Your task to perform on an android device: Turn off the flashlight Image 0: 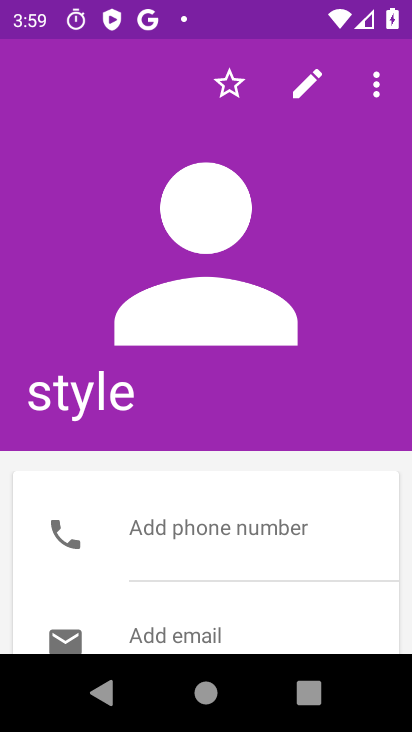
Step 0: press home button
Your task to perform on an android device: Turn off the flashlight Image 1: 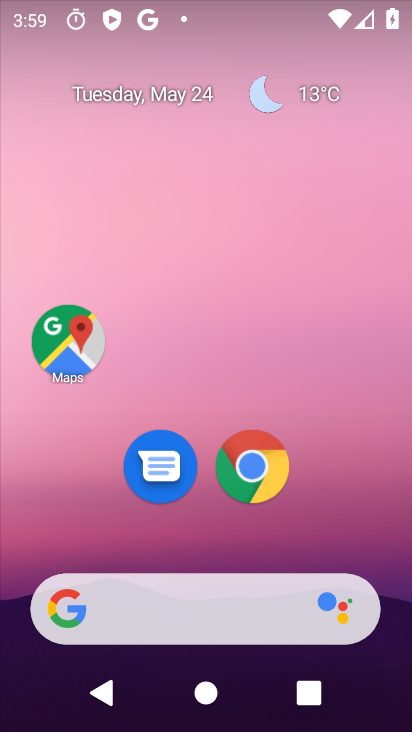
Step 1: drag from (300, 390) to (308, 116)
Your task to perform on an android device: Turn off the flashlight Image 2: 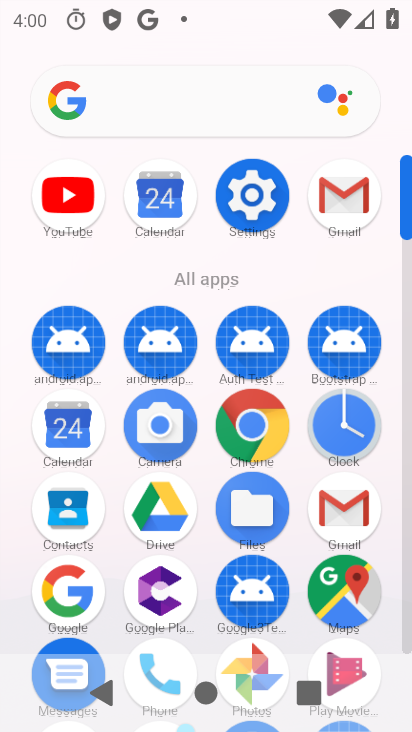
Step 2: click (249, 200)
Your task to perform on an android device: Turn off the flashlight Image 3: 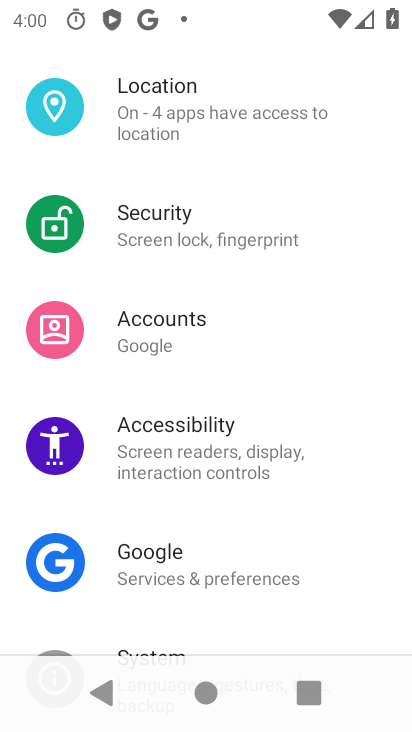
Step 3: drag from (265, 166) to (247, 541)
Your task to perform on an android device: Turn off the flashlight Image 4: 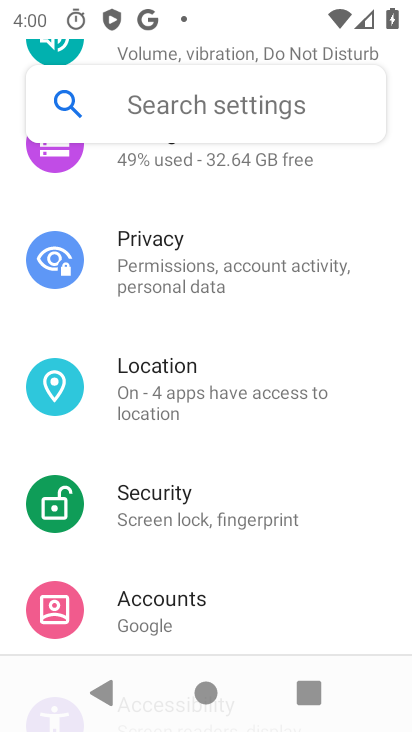
Step 4: drag from (204, 232) to (200, 564)
Your task to perform on an android device: Turn off the flashlight Image 5: 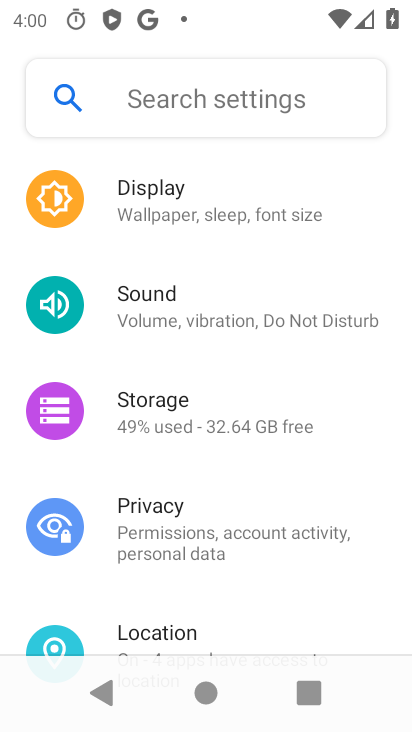
Step 5: drag from (174, 235) to (197, 574)
Your task to perform on an android device: Turn off the flashlight Image 6: 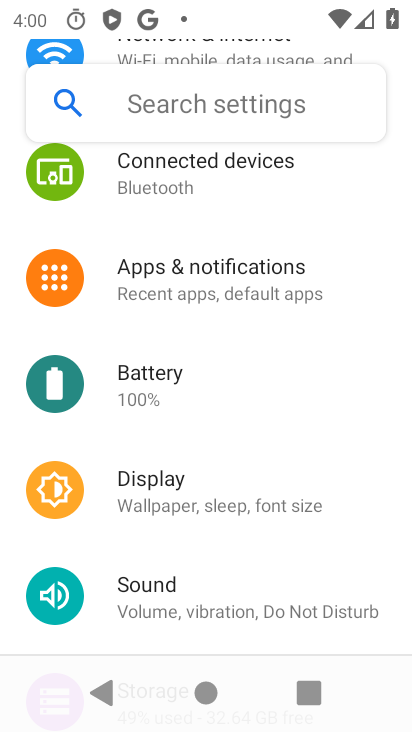
Step 6: drag from (152, 222) to (182, 574)
Your task to perform on an android device: Turn off the flashlight Image 7: 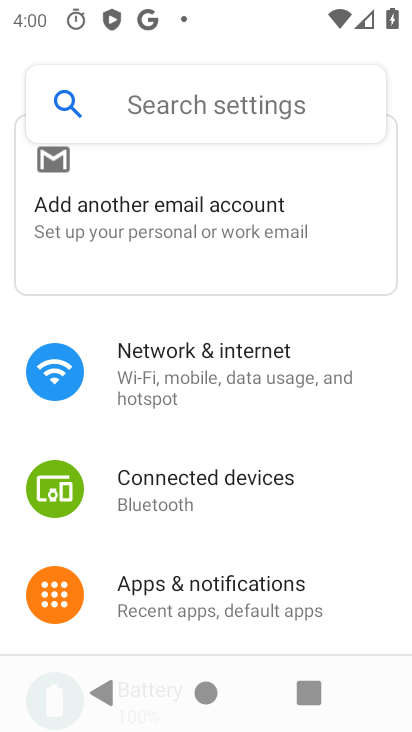
Step 7: drag from (198, 503) to (216, 279)
Your task to perform on an android device: Turn off the flashlight Image 8: 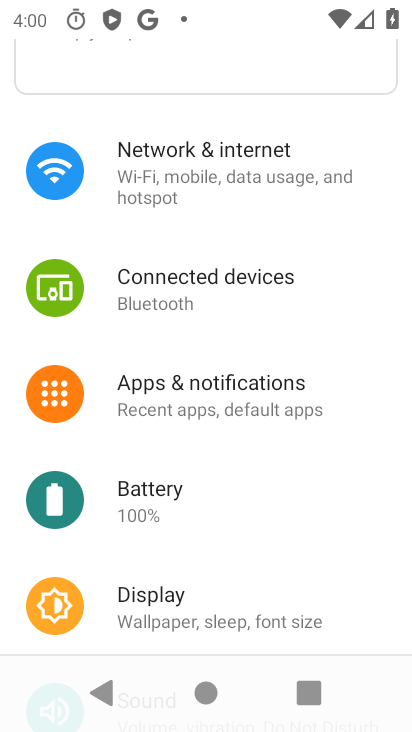
Step 8: click (162, 588)
Your task to perform on an android device: Turn off the flashlight Image 9: 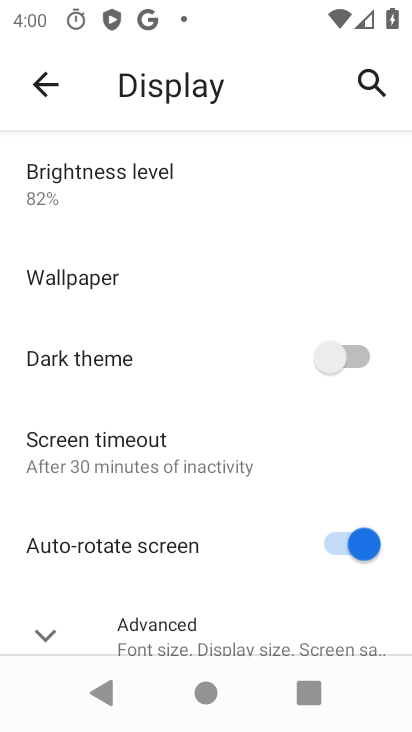
Step 9: task complete